Your task to perform on an android device: turn on the 12-hour format for clock Image 0: 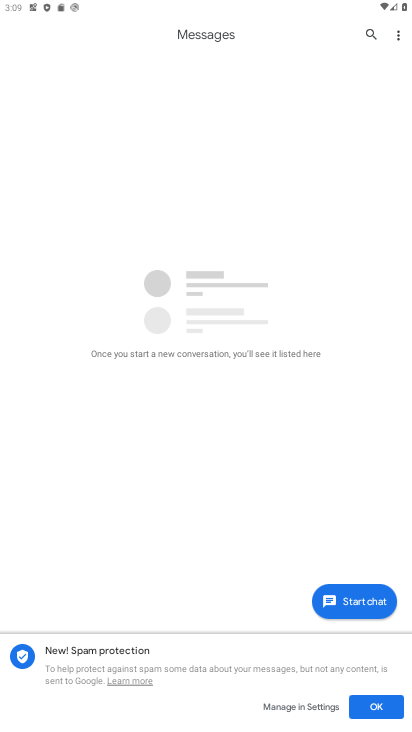
Step 0: press home button
Your task to perform on an android device: turn on the 12-hour format for clock Image 1: 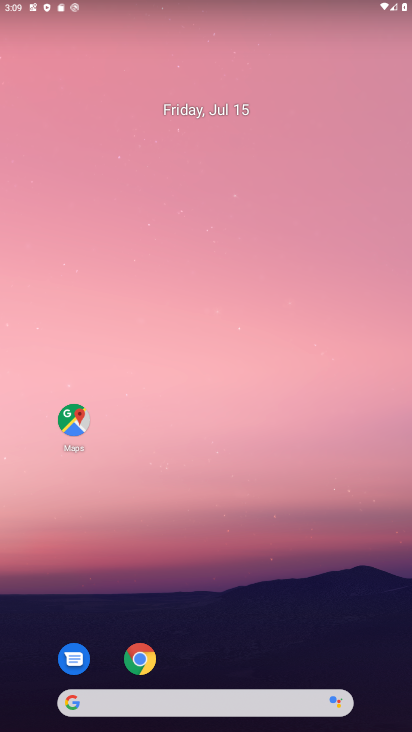
Step 1: drag from (135, 573) to (78, 289)
Your task to perform on an android device: turn on the 12-hour format for clock Image 2: 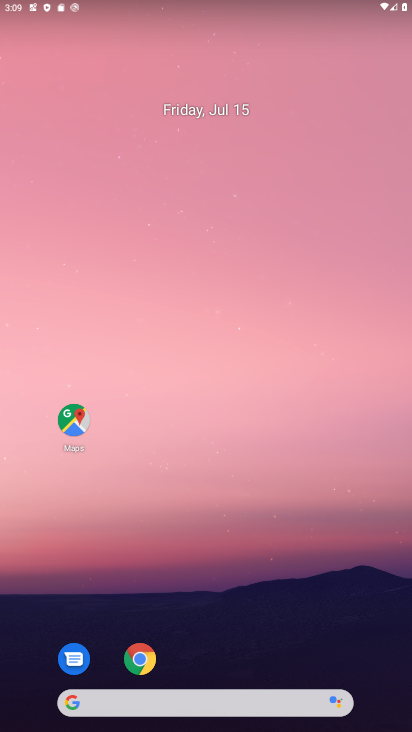
Step 2: drag from (235, 454) to (239, 236)
Your task to perform on an android device: turn on the 12-hour format for clock Image 3: 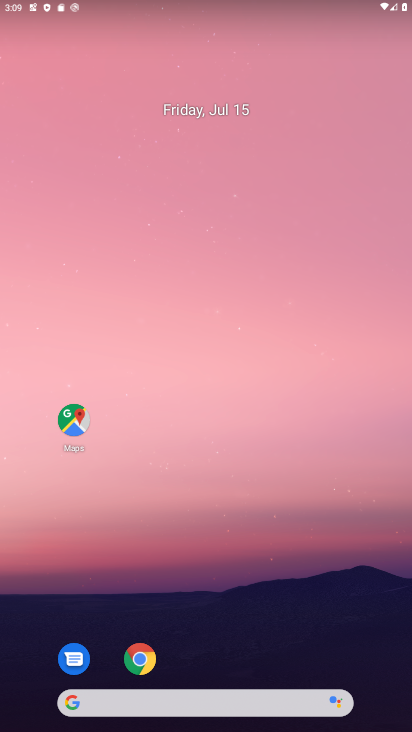
Step 3: drag from (263, 680) to (270, 152)
Your task to perform on an android device: turn on the 12-hour format for clock Image 4: 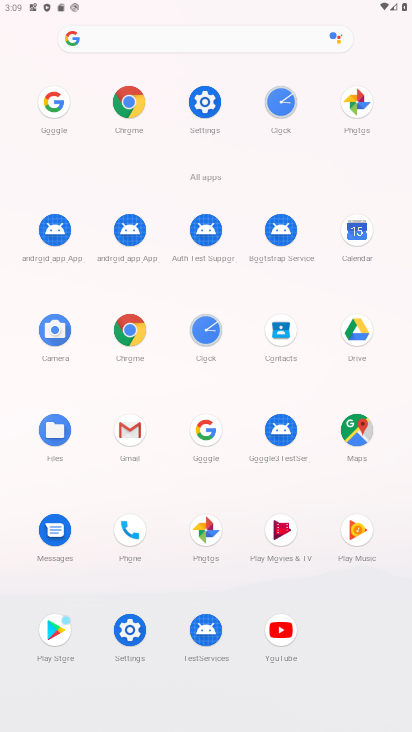
Step 4: click (211, 335)
Your task to perform on an android device: turn on the 12-hour format for clock Image 5: 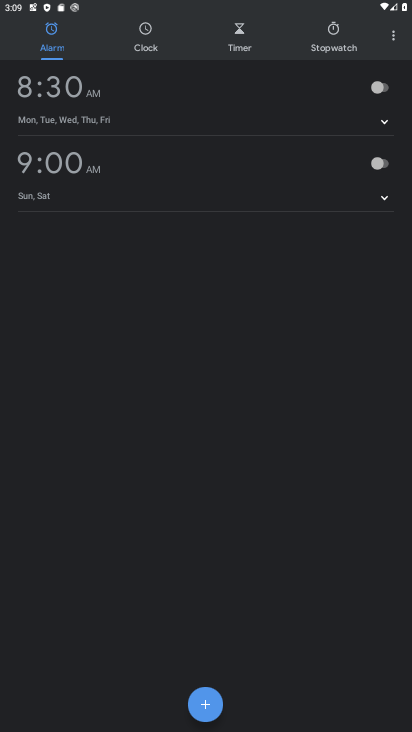
Step 5: click (392, 46)
Your task to perform on an android device: turn on the 12-hour format for clock Image 6: 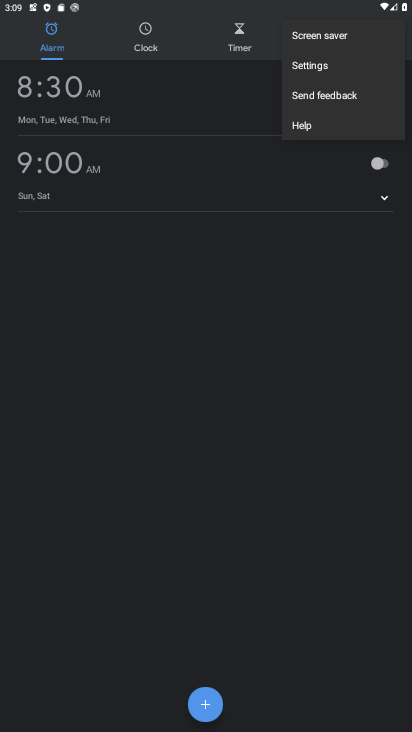
Step 6: click (332, 70)
Your task to perform on an android device: turn on the 12-hour format for clock Image 7: 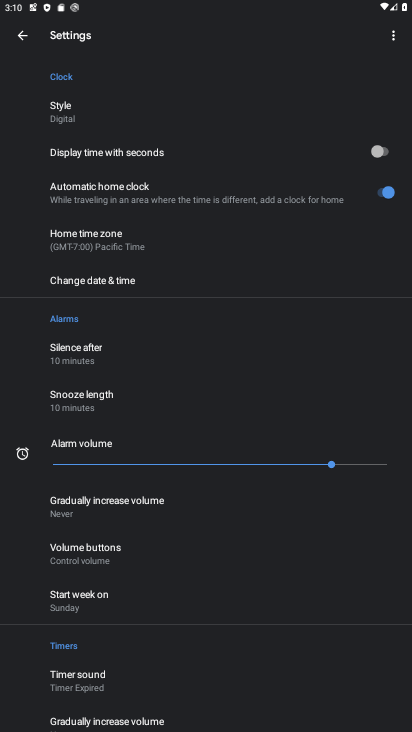
Step 7: click (60, 296)
Your task to perform on an android device: turn on the 12-hour format for clock Image 8: 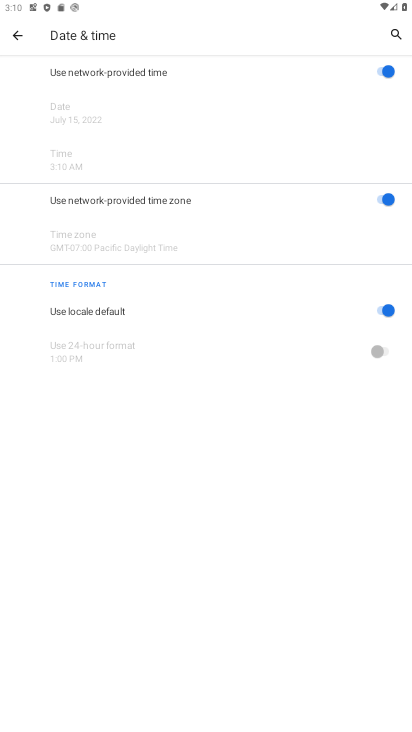
Step 8: task complete